Your task to perform on an android device: Open the stopwatch Image 0: 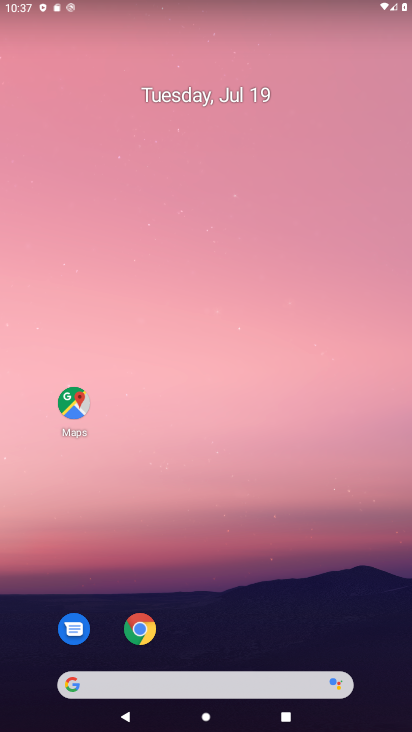
Step 0: drag from (260, 685) to (293, 199)
Your task to perform on an android device: Open the stopwatch Image 1: 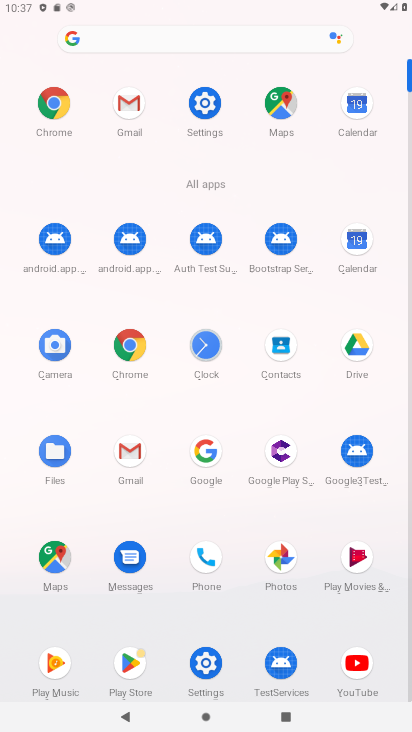
Step 1: click (205, 340)
Your task to perform on an android device: Open the stopwatch Image 2: 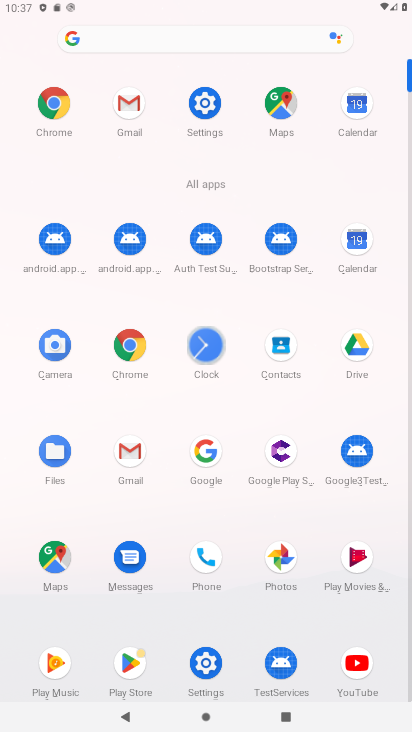
Step 2: click (207, 342)
Your task to perform on an android device: Open the stopwatch Image 3: 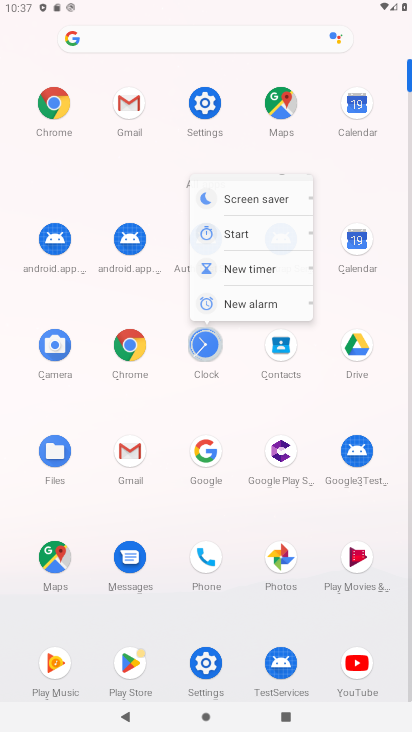
Step 3: click (207, 342)
Your task to perform on an android device: Open the stopwatch Image 4: 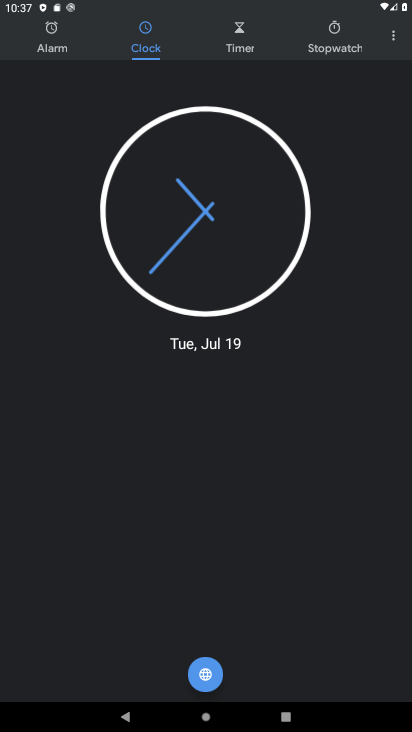
Step 4: click (333, 48)
Your task to perform on an android device: Open the stopwatch Image 5: 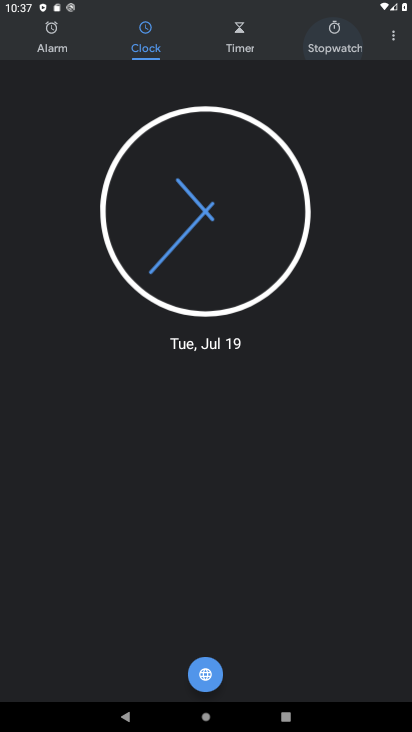
Step 5: click (333, 47)
Your task to perform on an android device: Open the stopwatch Image 6: 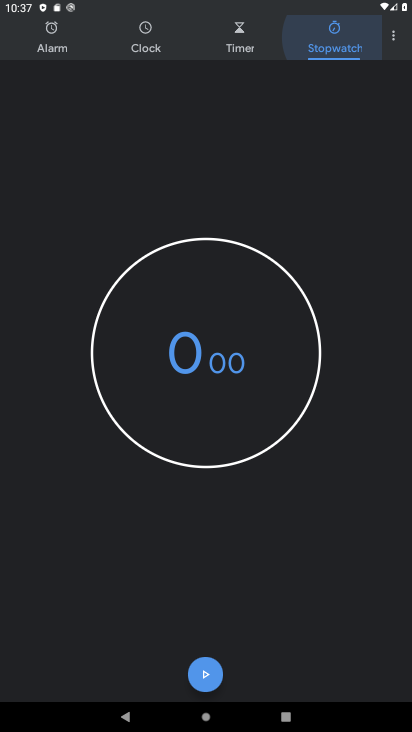
Step 6: click (349, 47)
Your task to perform on an android device: Open the stopwatch Image 7: 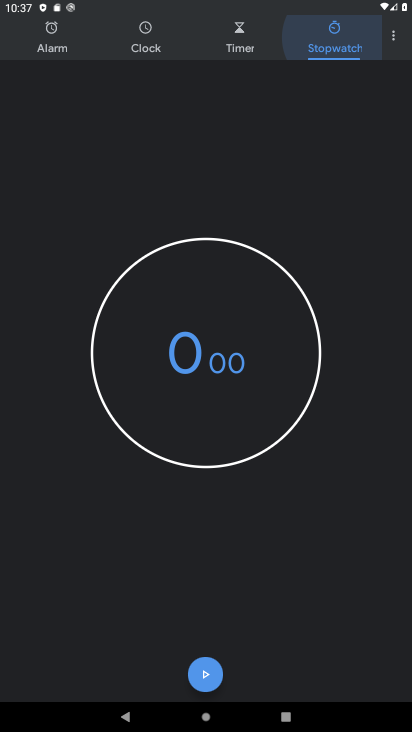
Step 7: click (351, 49)
Your task to perform on an android device: Open the stopwatch Image 8: 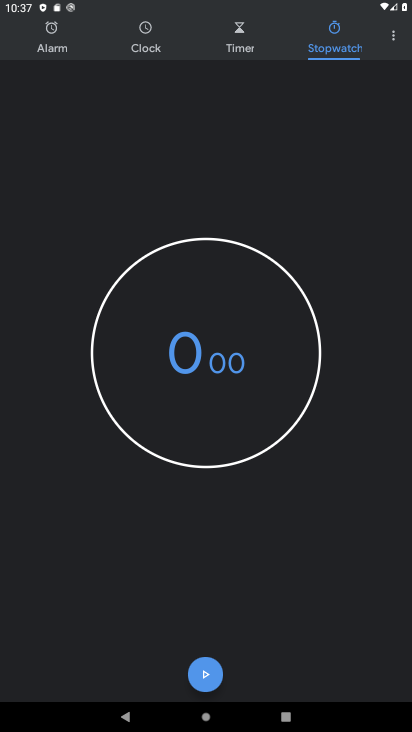
Step 8: click (210, 668)
Your task to perform on an android device: Open the stopwatch Image 9: 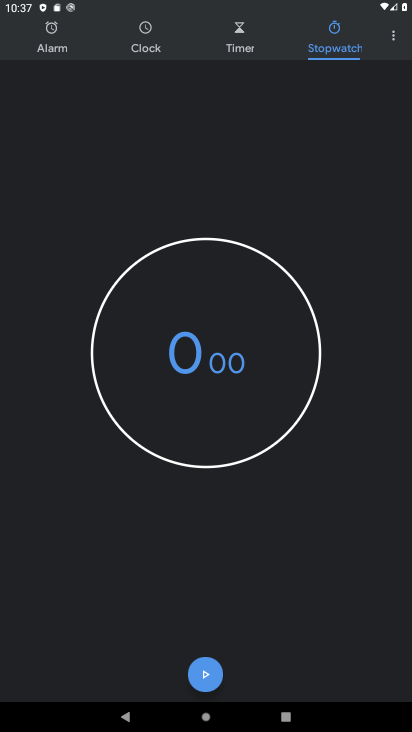
Step 9: click (210, 668)
Your task to perform on an android device: Open the stopwatch Image 10: 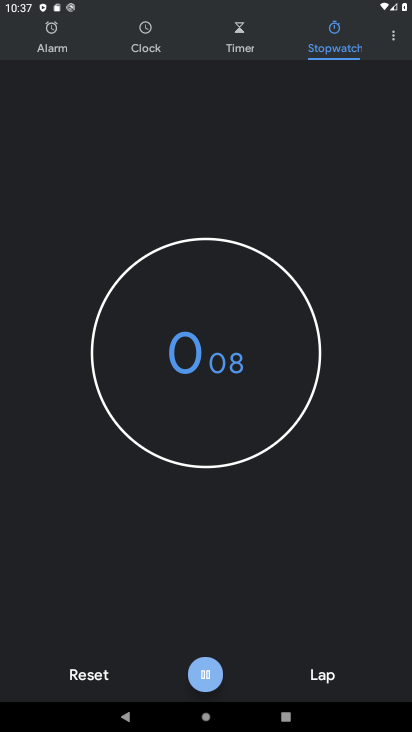
Step 10: click (210, 668)
Your task to perform on an android device: Open the stopwatch Image 11: 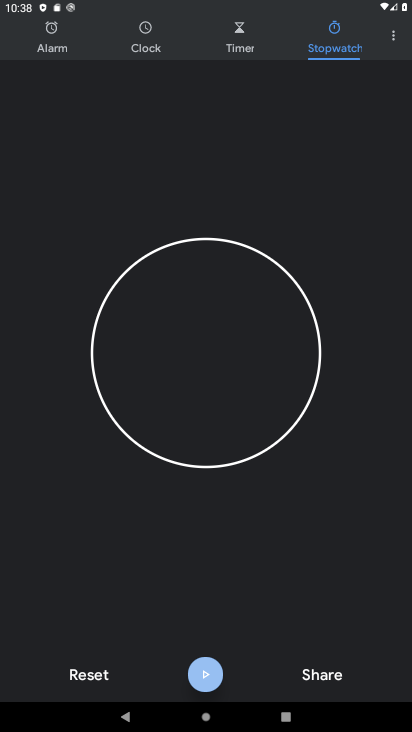
Step 11: click (210, 669)
Your task to perform on an android device: Open the stopwatch Image 12: 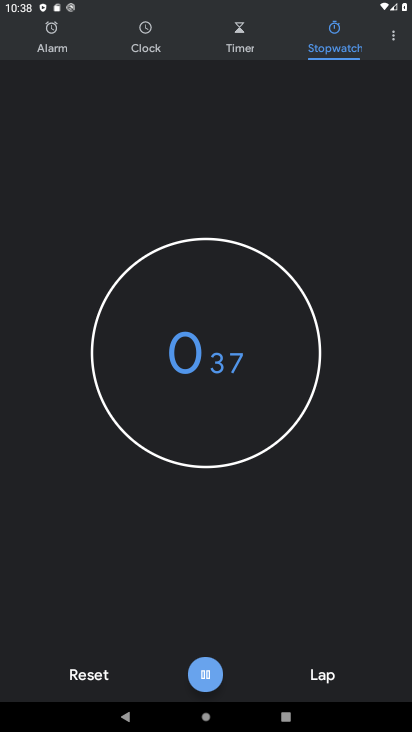
Step 12: click (210, 669)
Your task to perform on an android device: Open the stopwatch Image 13: 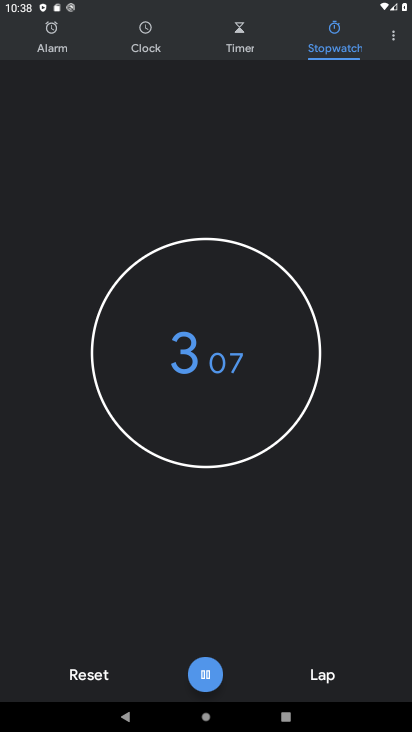
Step 13: click (208, 672)
Your task to perform on an android device: Open the stopwatch Image 14: 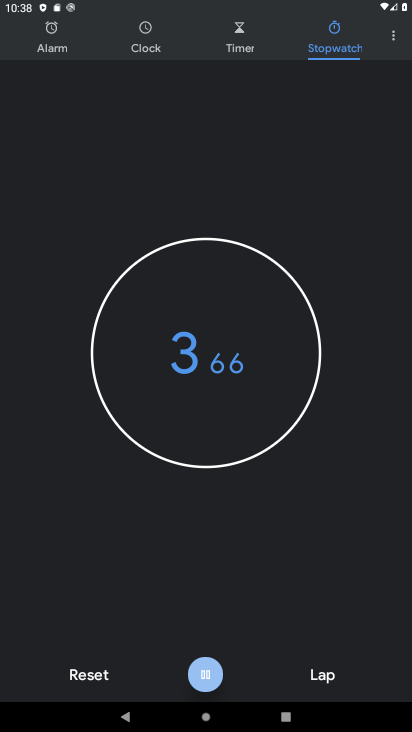
Step 14: click (208, 672)
Your task to perform on an android device: Open the stopwatch Image 15: 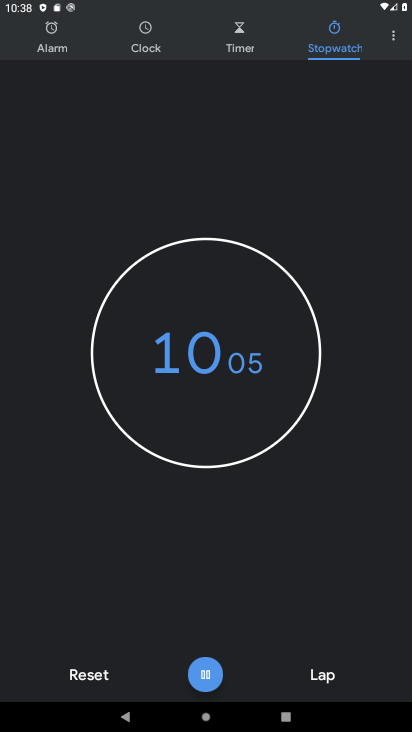
Step 15: click (205, 677)
Your task to perform on an android device: Open the stopwatch Image 16: 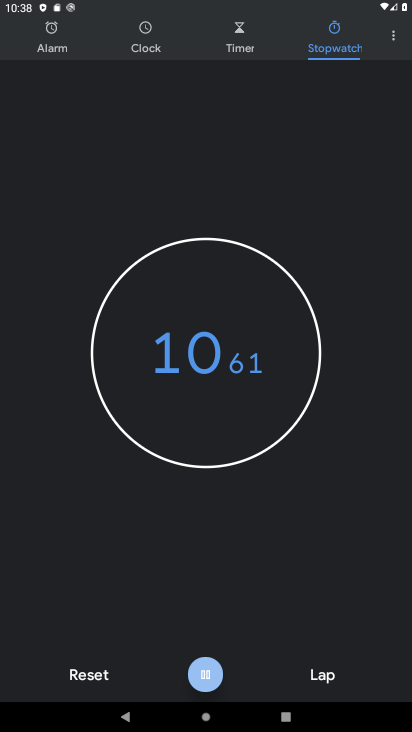
Step 16: click (206, 676)
Your task to perform on an android device: Open the stopwatch Image 17: 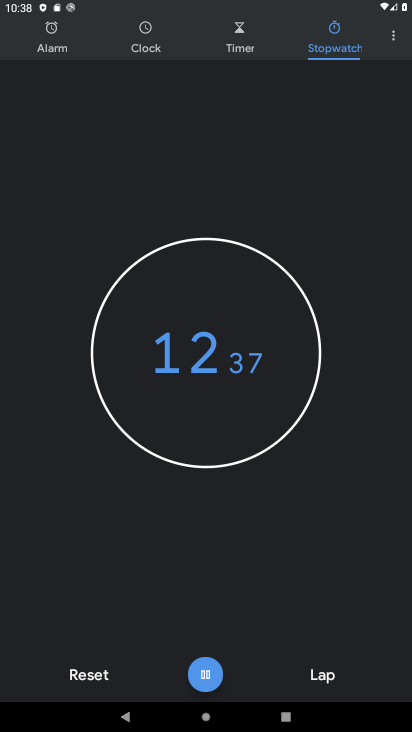
Step 17: click (209, 679)
Your task to perform on an android device: Open the stopwatch Image 18: 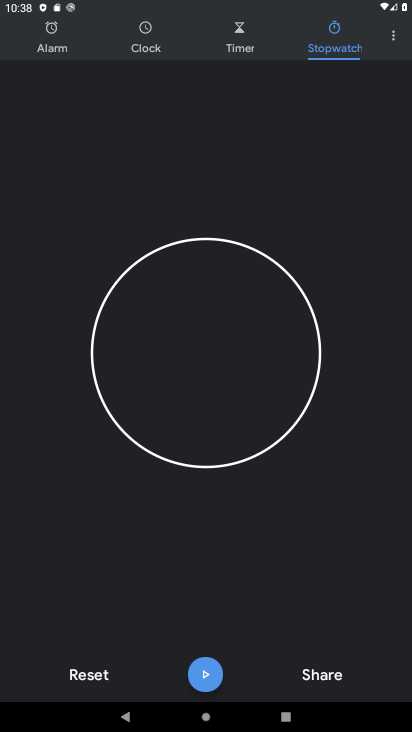
Step 18: task complete